Your task to perform on an android device: Set the phone to "Do not disturb". Image 0: 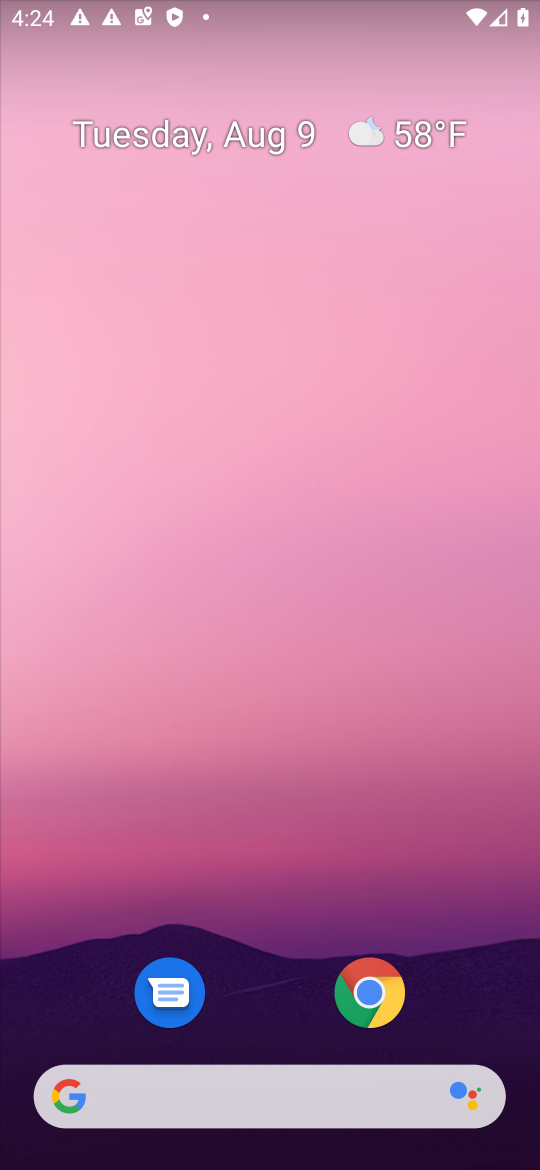
Step 0: drag from (401, 1079) to (486, 85)
Your task to perform on an android device: Set the phone to "Do not disturb". Image 1: 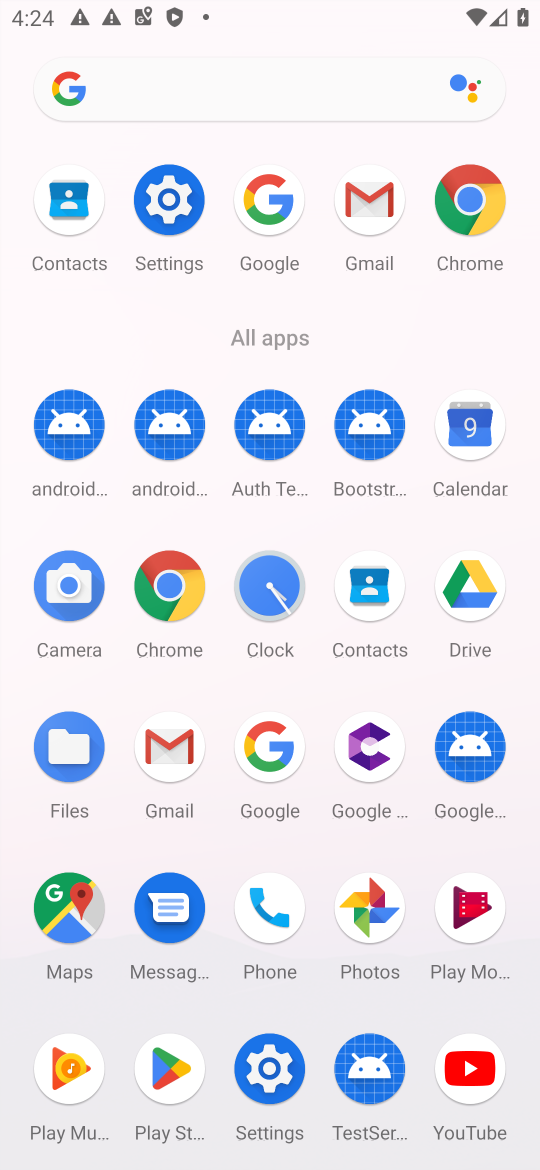
Step 1: click (157, 177)
Your task to perform on an android device: Set the phone to "Do not disturb". Image 2: 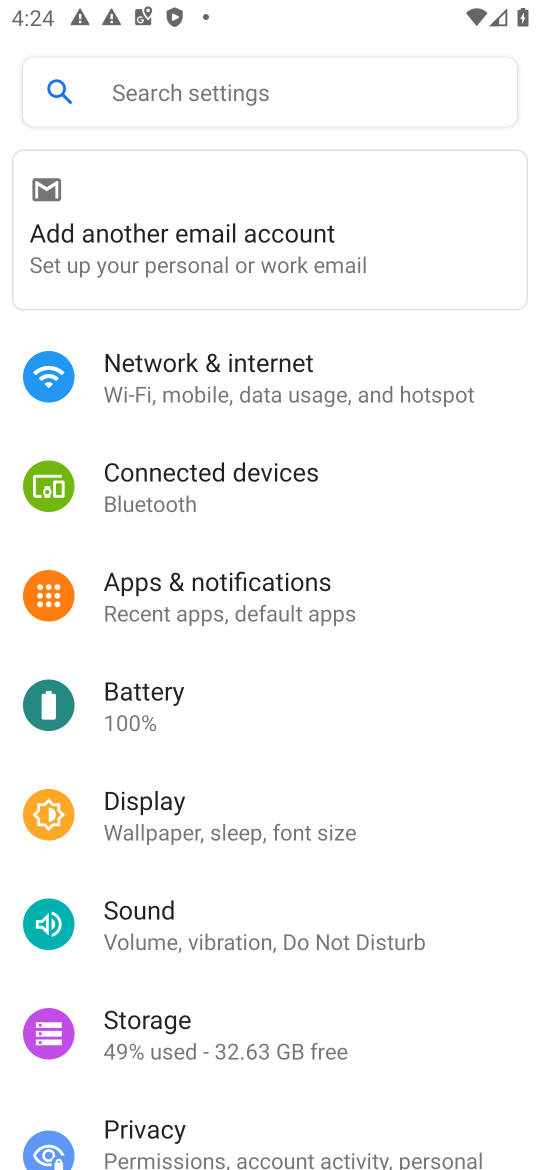
Step 2: click (355, 932)
Your task to perform on an android device: Set the phone to "Do not disturb". Image 3: 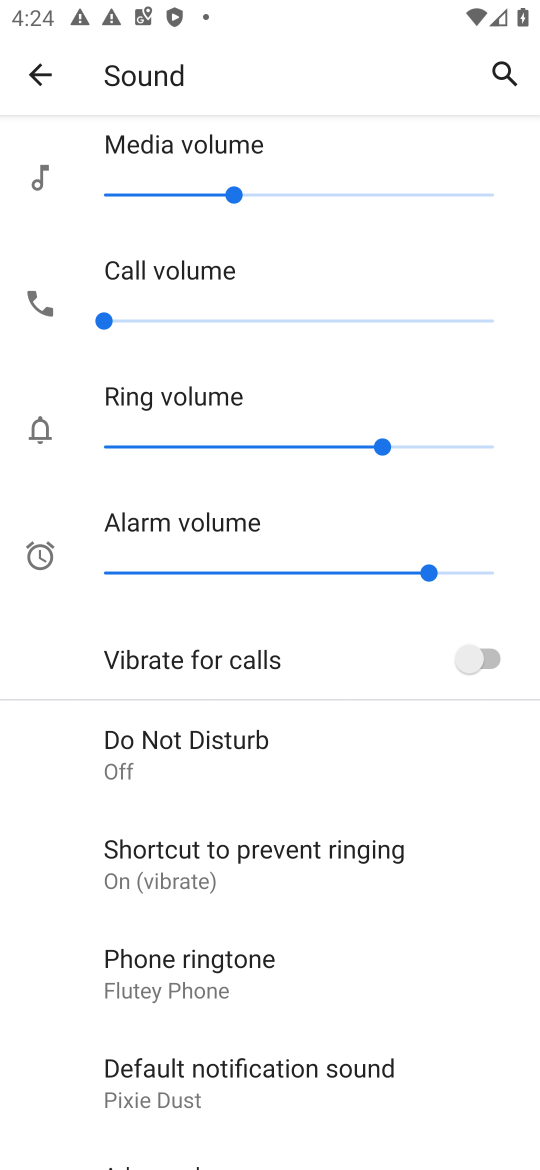
Step 3: click (174, 732)
Your task to perform on an android device: Set the phone to "Do not disturb". Image 4: 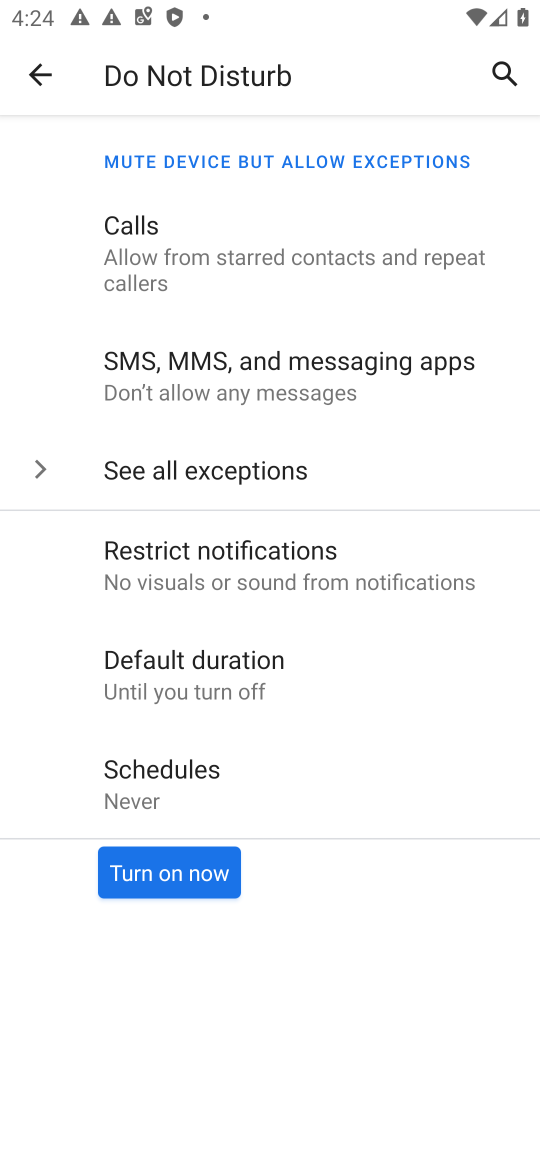
Step 4: click (174, 732)
Your task to perform on an android device: Set the phone to "Do not disturb". Image 5: 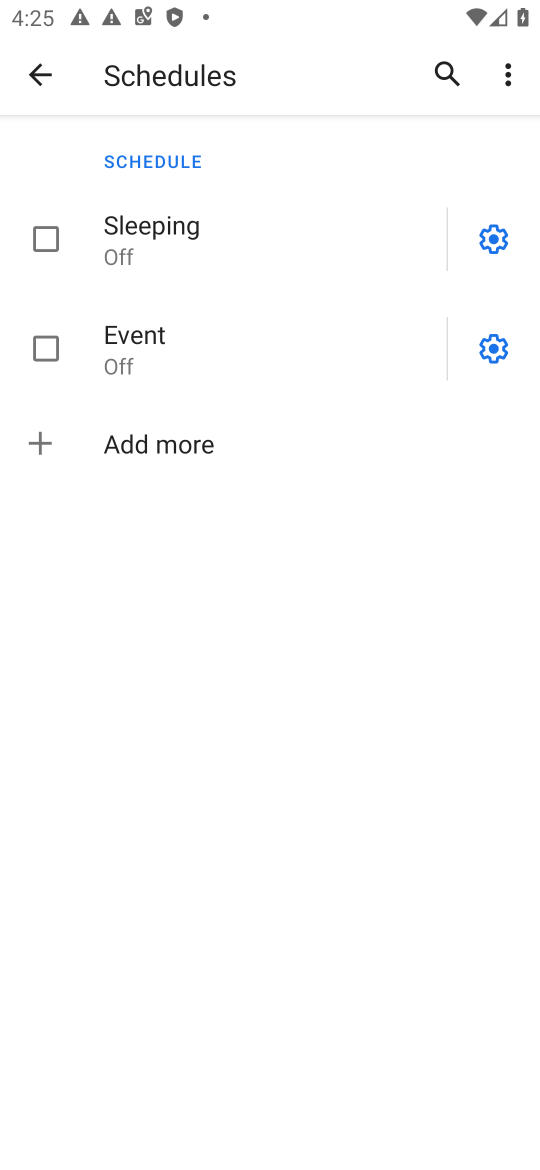
Step 5: task complete